Your task to perform on an android device: open the mobile data screen to see how much data has been used Image 0: 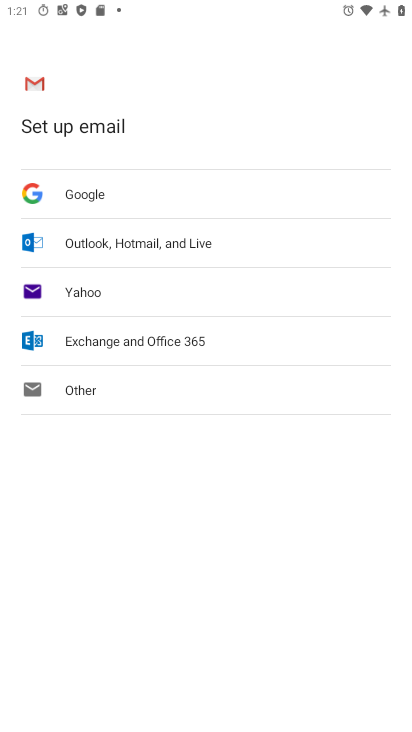
Step 0: press home button
Your task to perform on an android device: open the mobile data screen to see how much data has been used Image 1: 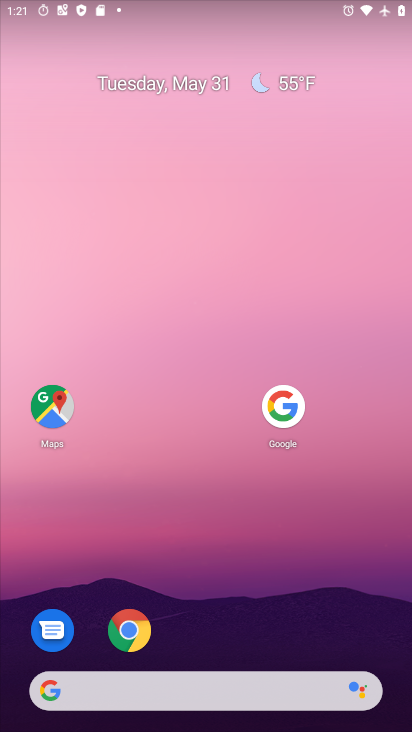
Step 1: drag from (178, 693) to (297, 185)
Your task to perform on an android device: open the mobile data screen to see how much data has been used Image 2: 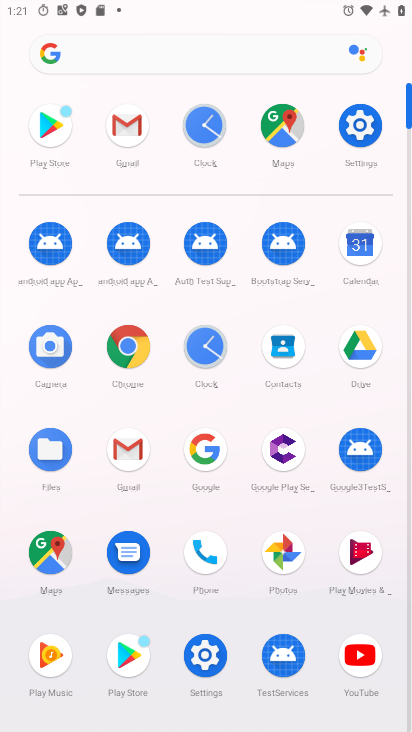
Step 2: click (356, 115)
Your task to perform on an android device: open the mobile data screen to see how much data has been used Image 3: 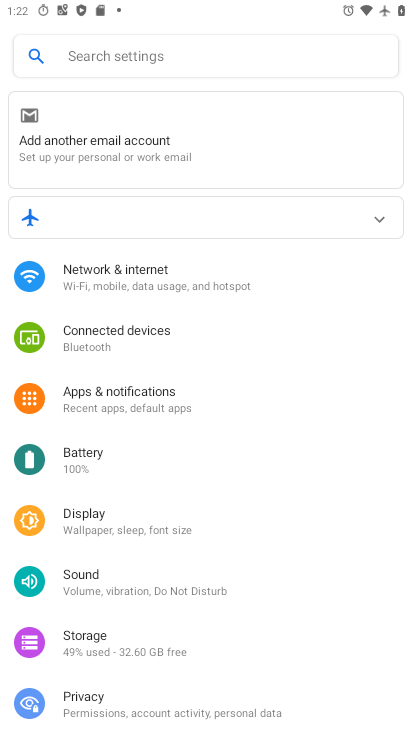
Step 3: click (140, 277)
Your task to perform on an android device: open the mobile data screen to see how much data has been used Image 4: 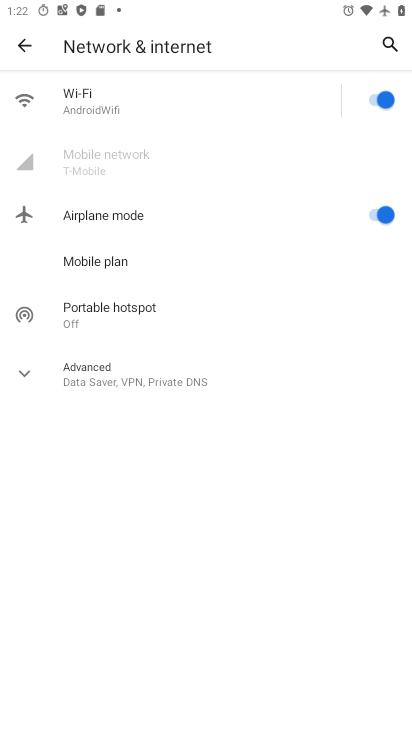
Step 4: task complete